Your task to perform on an android device: Search for pizza restaurants on Maps Image 0: 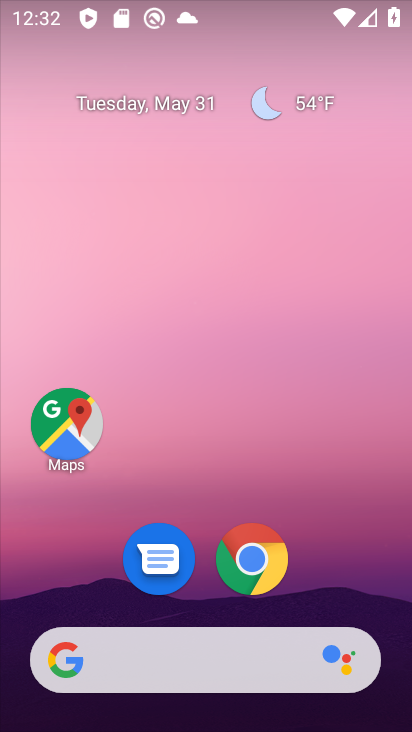
Step 0: click (52, 416)
Your task to perform on an android device: Search for pizza restaurants on Maps Image 1: 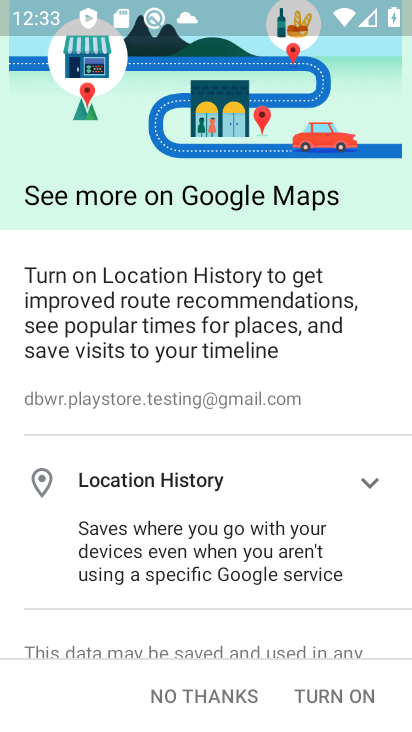
Step 1: click (206, 700)
Your task to perform on an android device: Search for pizza restaurants on Maps Image 2: 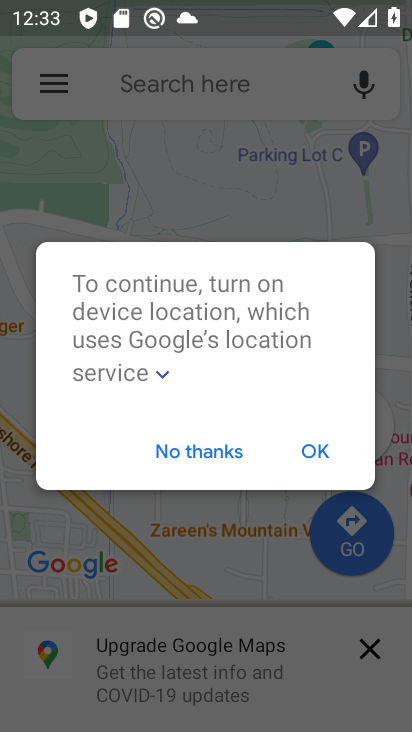
Step 2: click (311, 454)
Your task to perform on an android device: Search for pizza restaurants on Maps Image 3: 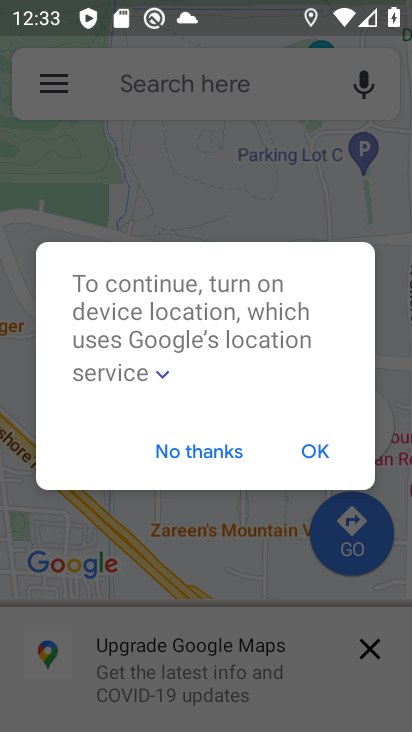
Step 3: click (210, 457)
Your task to perform on an android device: Search for pizza restaurants on Maps Image 4: 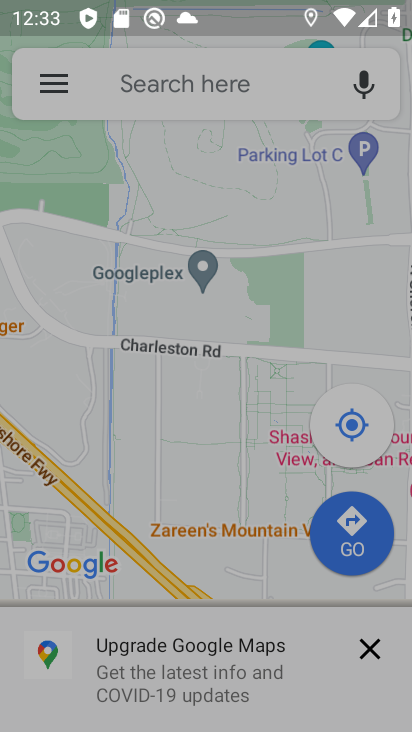
Step 4: click (243, 92)
Your task to perform on an android device: Search for pizza restaurants on Maps Image 5: 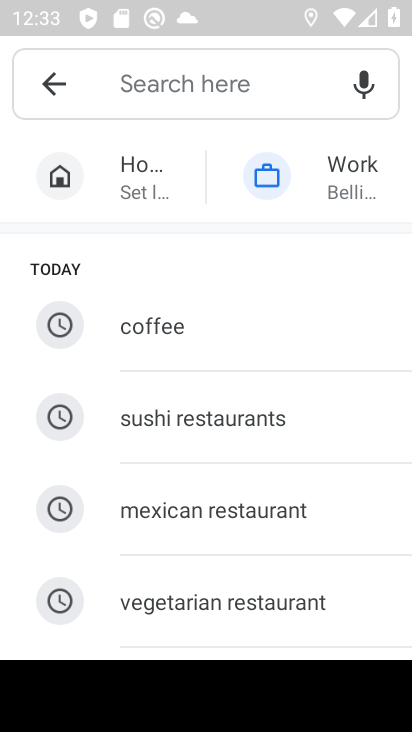
Step 5: type "pizza restaurants"
Your task to perform on an android device: Search for pizza restaurants on Maps Image 6: 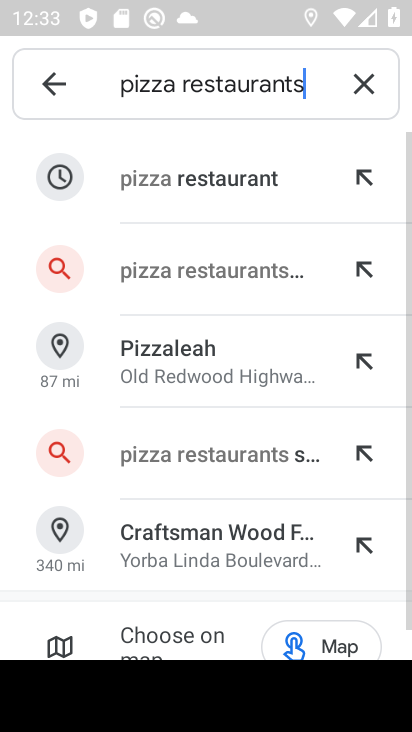
Step 6: click (216, 179)
Your task to perform on an android device: Search for pizza restaurants on Maps Image 7: 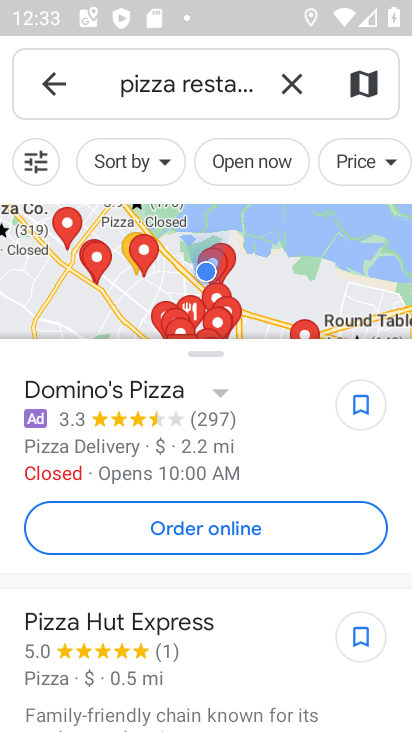
Step 7: task complete